Your task to perform on an android device: Add bose soundlink to the cart on target.com Image 0: 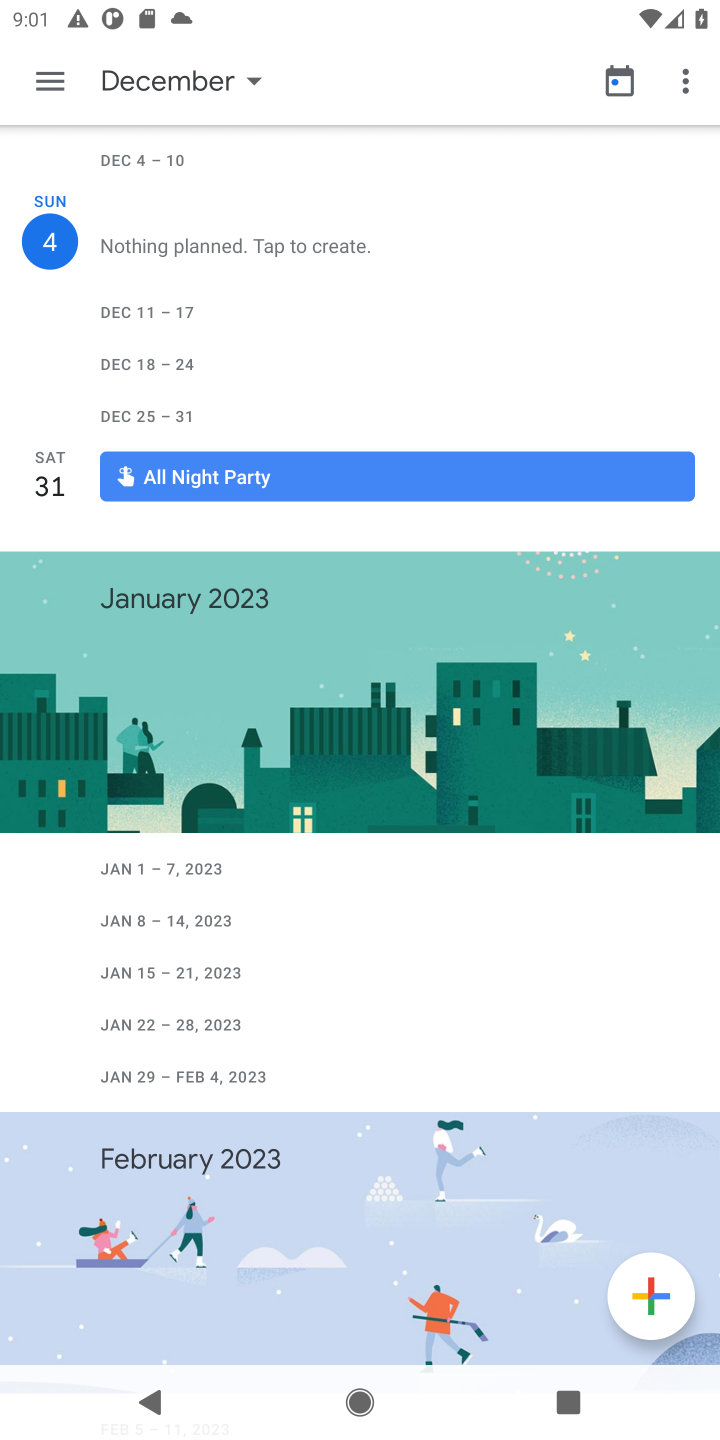
Step 0: press home button
Your task to perform on an android device: Add bose soundlink to the cart on target.com Image 1: 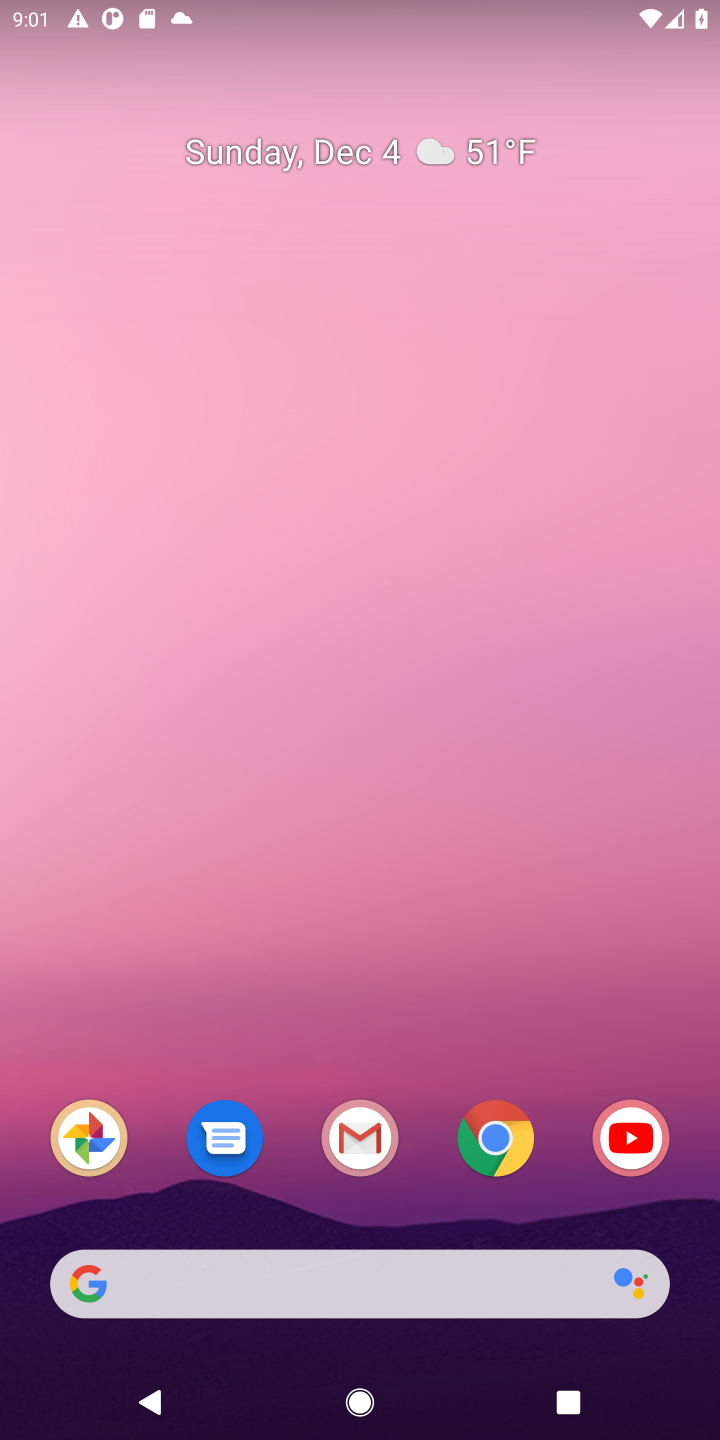
Step 1: click (498, 1151)
Your task to perform on an android device: Add bose soundlink to the cart on target.com Image 2: 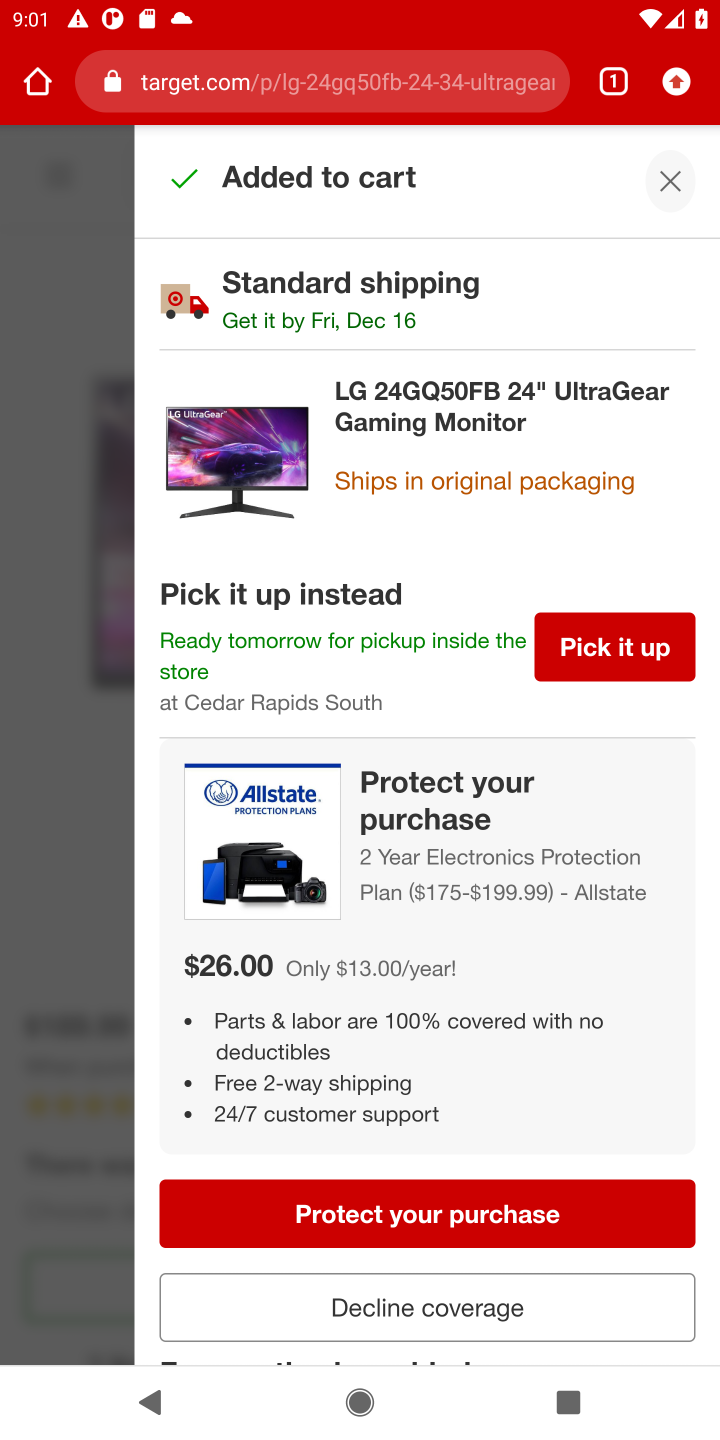
Step 2: click (457, 71)
Your task to perform on an android device: Add bose soundlink to the cart on target.com Image 3: 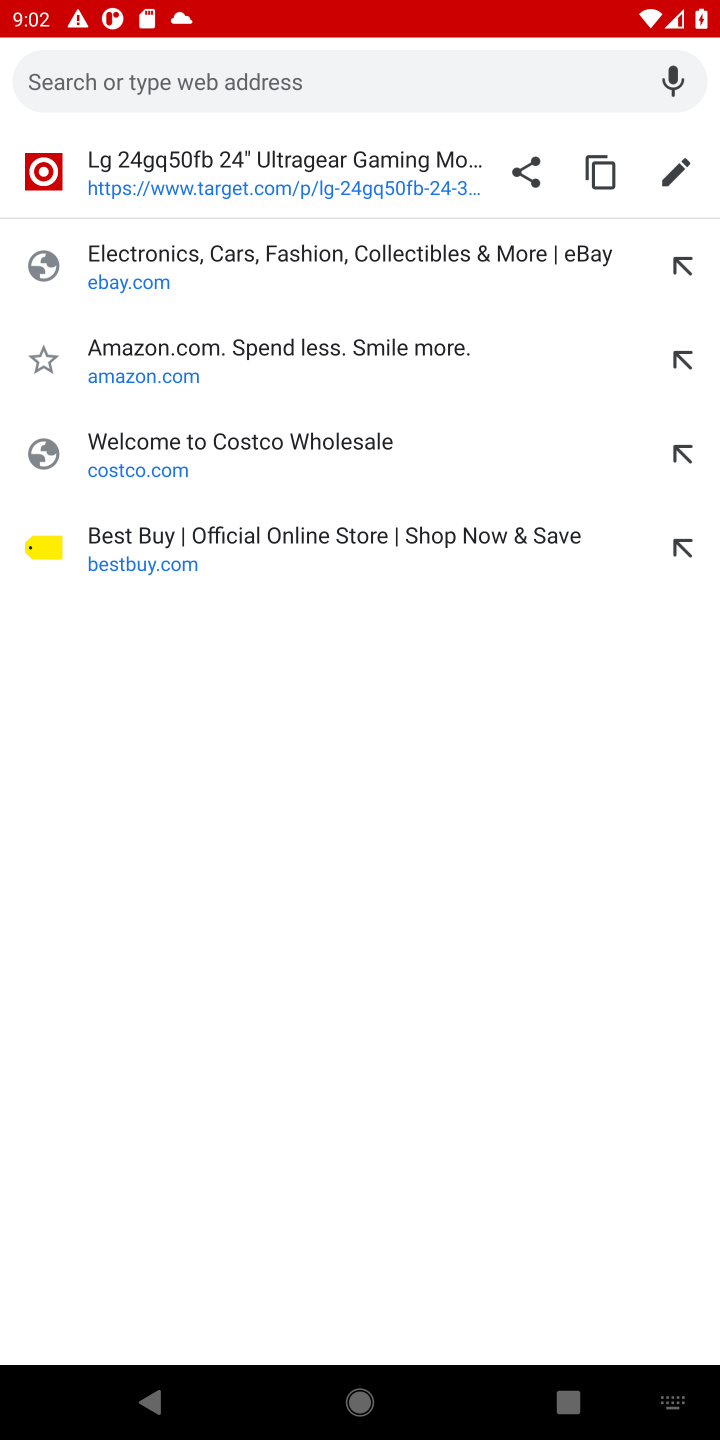
Step 3: type "target.com"
Your task to perform on an android device: Add bose soundlink to the cart on target.com Image 4: 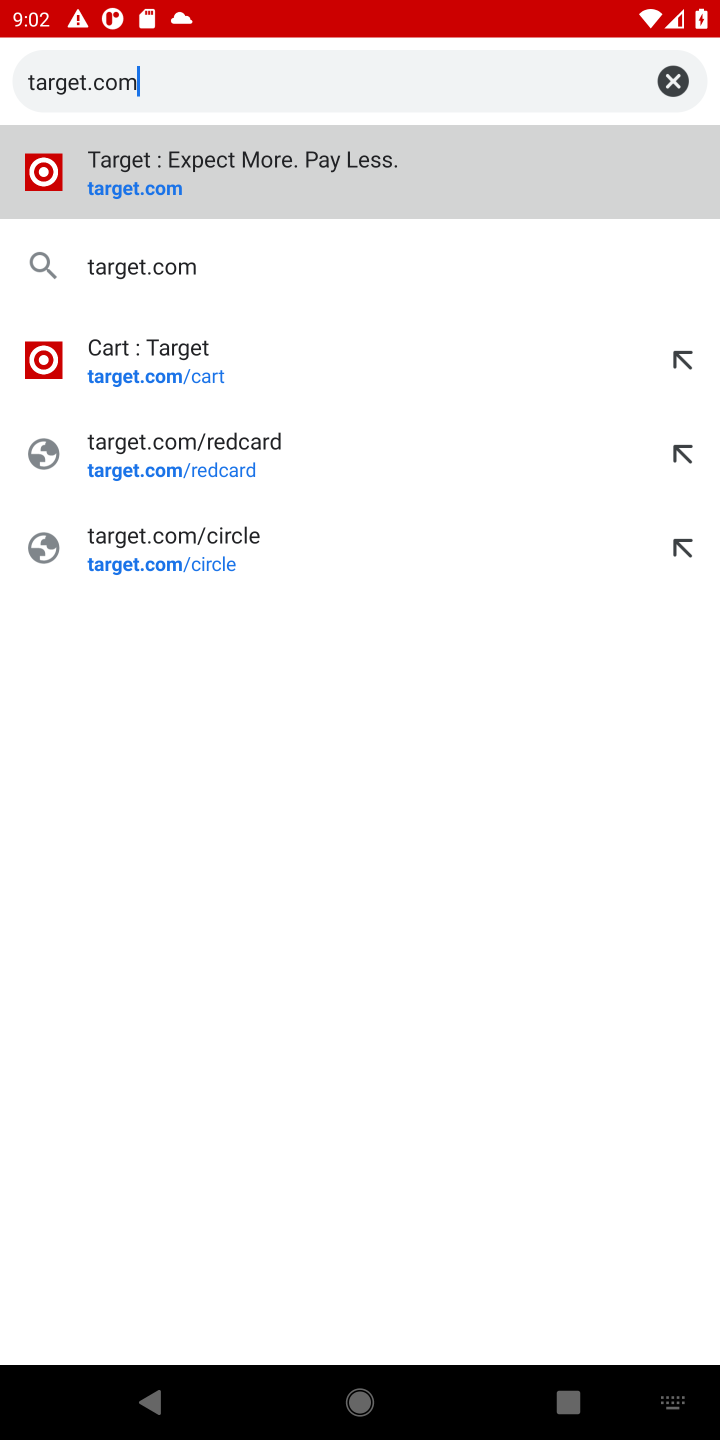
Step 4: press enter
Your task to perform on an android device: Add bose soundlink to the cart on target.com Image 5: 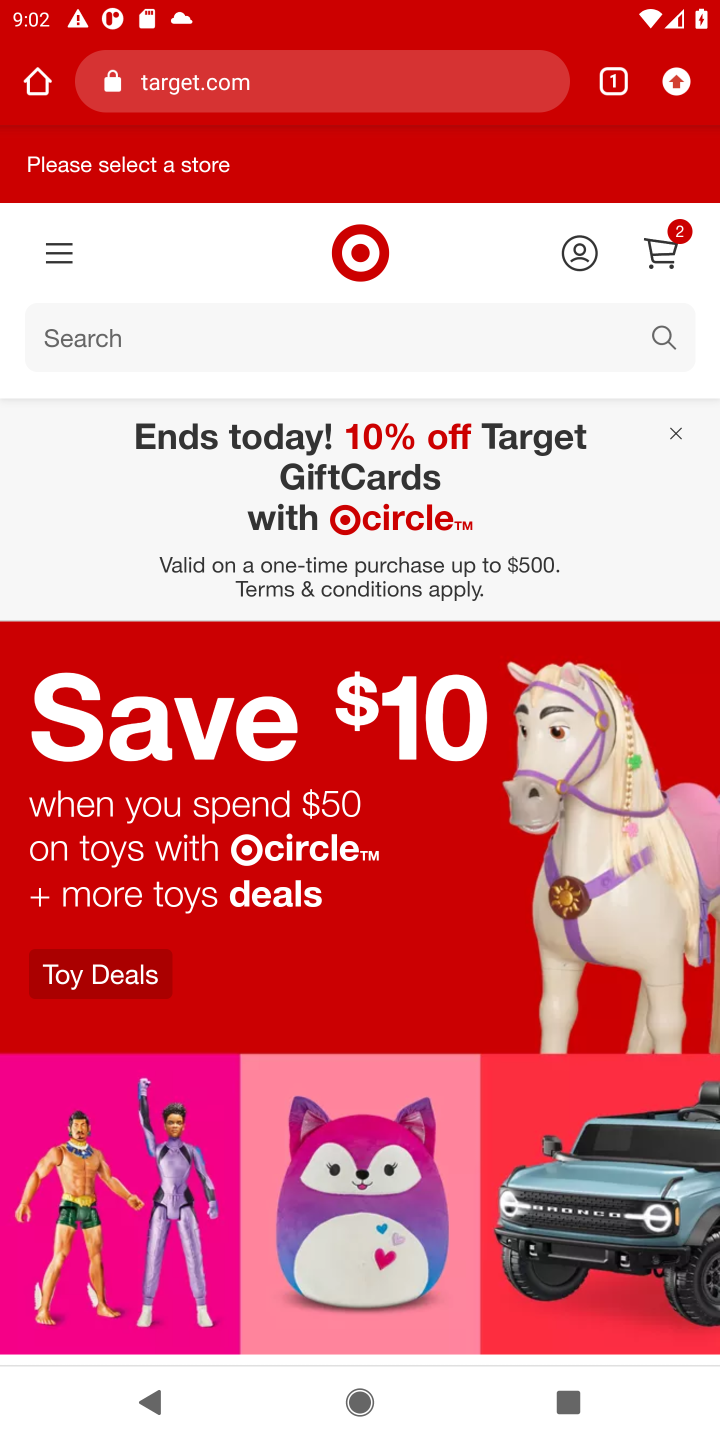
Step 5: click (657, 335)
Your task to perform on an android device: Add bose soundlink to the cart on target.com Image 6: 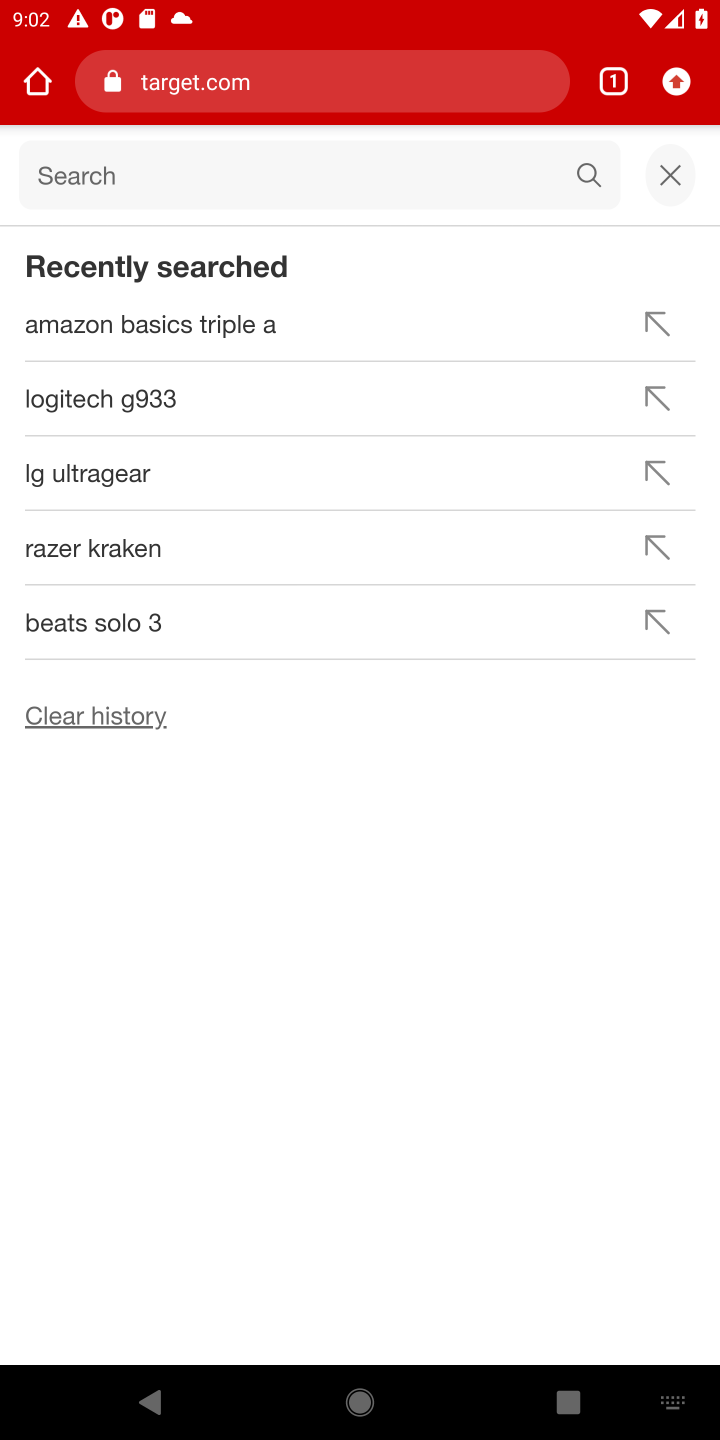
Step 6: press enter
Your task to perform on an android device: Add bose soundlink to the cart on target.com Image 7: 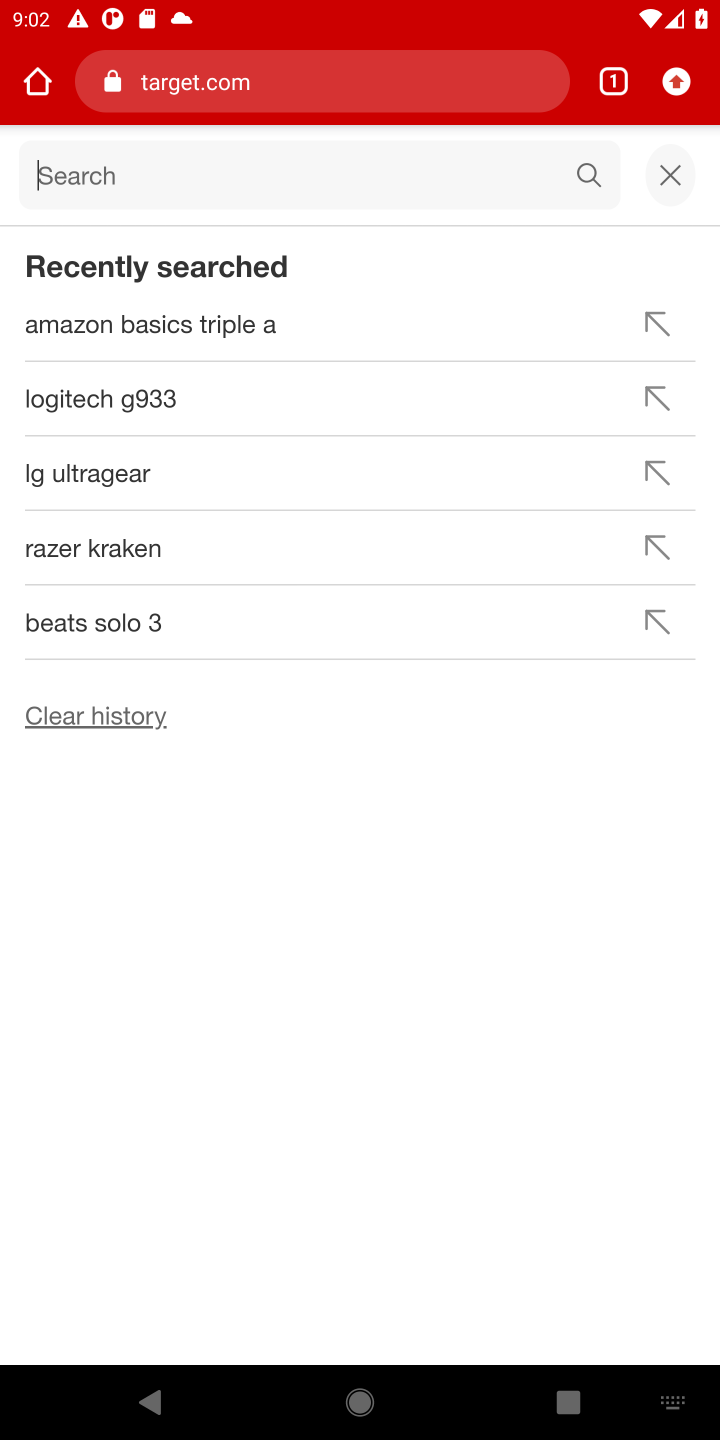
Step 7: type "bose soundlink"
Your task to perform on an android device: Add bose soundlink to the cart on target.com Image 8: 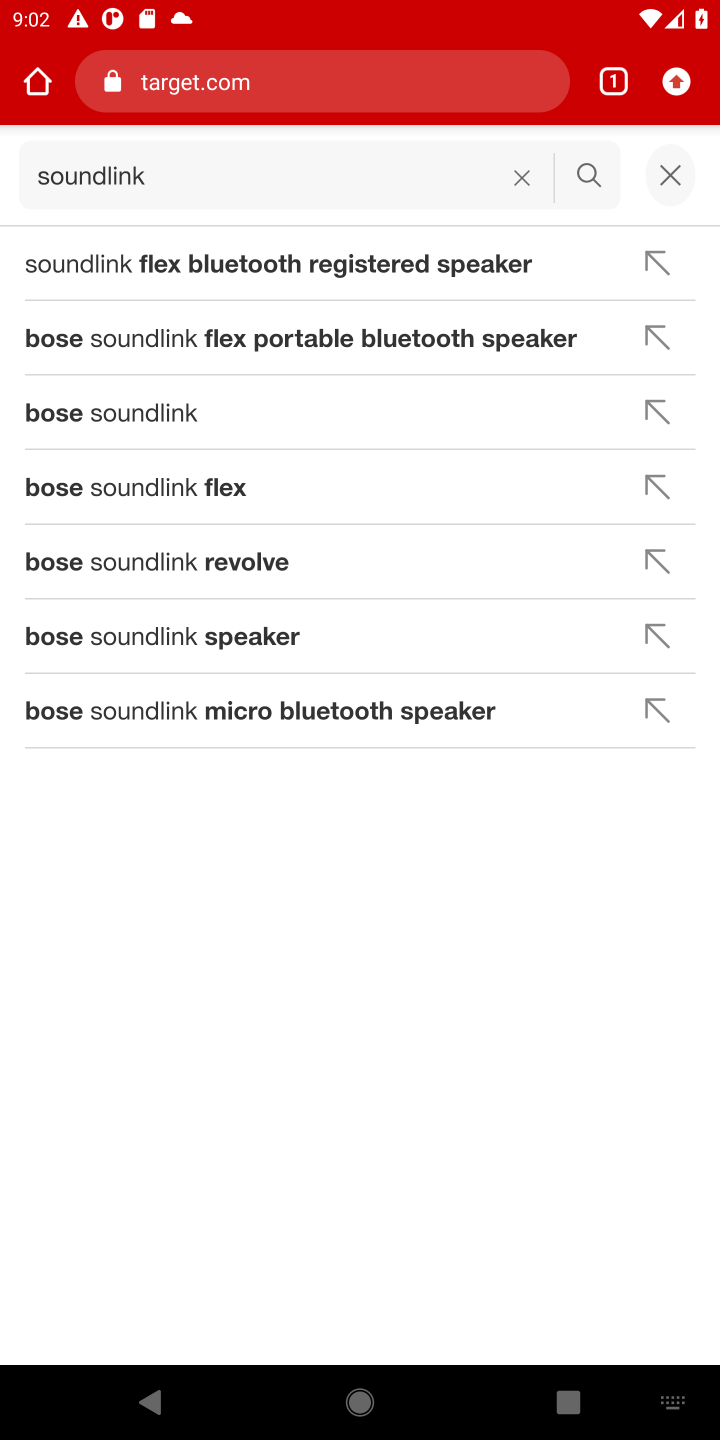
Step 8: click (147, 403)
Your task to perform on an android device: Add bose soundlink to the cart on target.com Image 9: 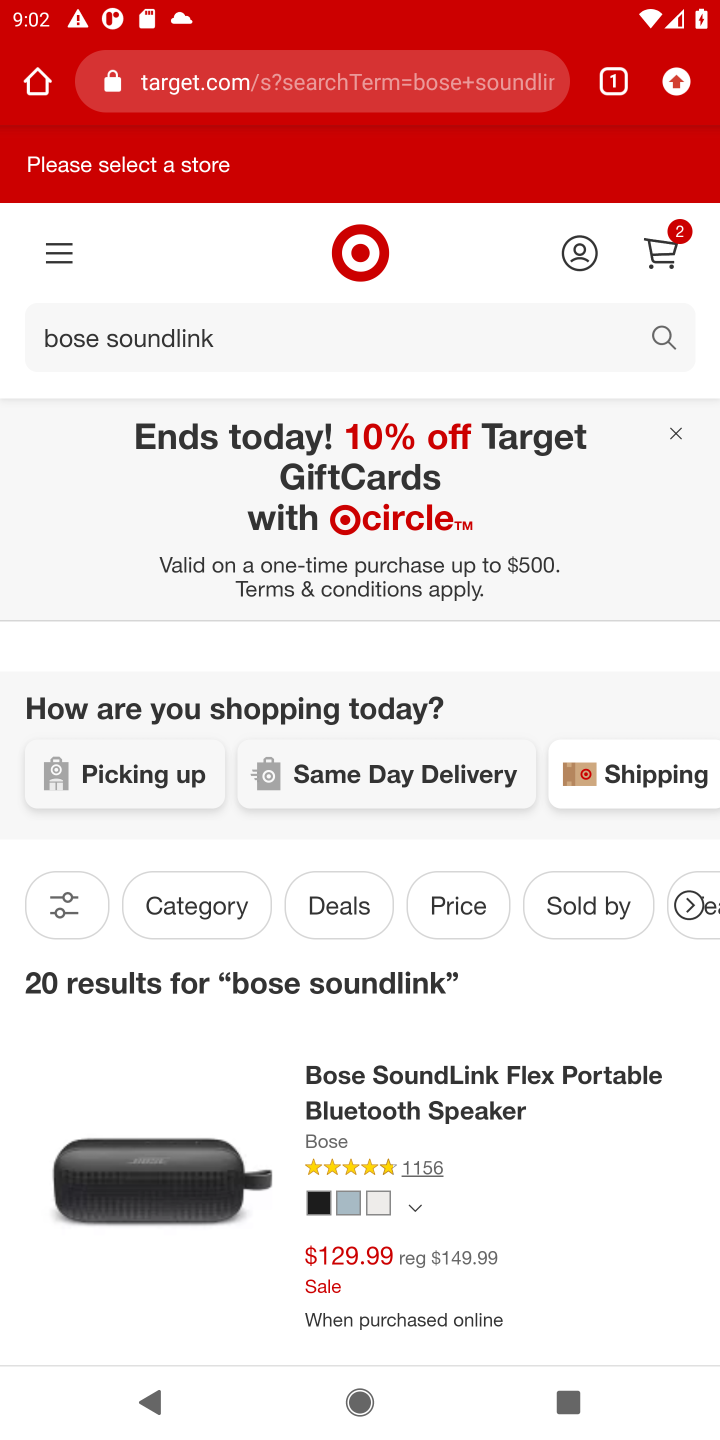
Step 9: drag from (613, 1128) to (706, 613)
Your task to perform on an android device: Add bose soundlink to the cart on target.com Image 10: 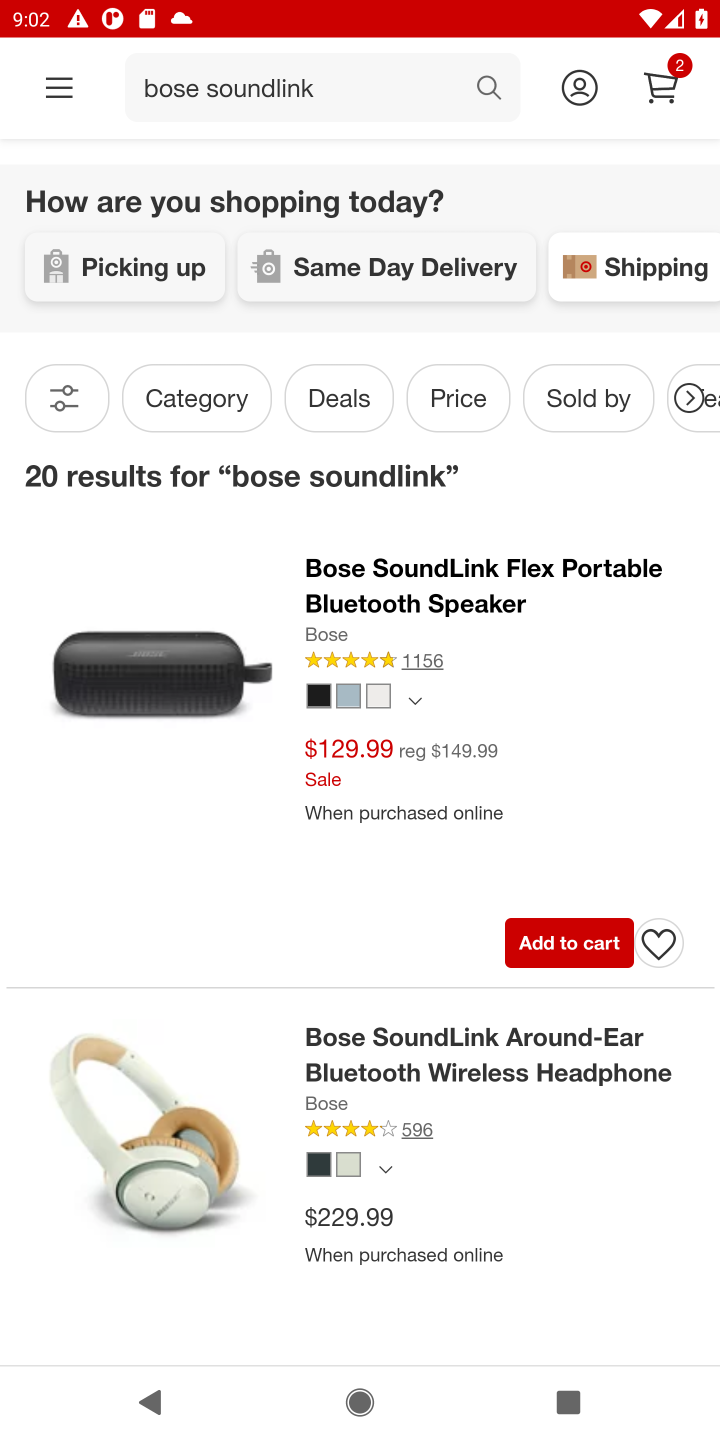
Step 10: click (141, 625)
Your task to perform on an android device: Add bose soundlink to the cart on target.com Image 11: 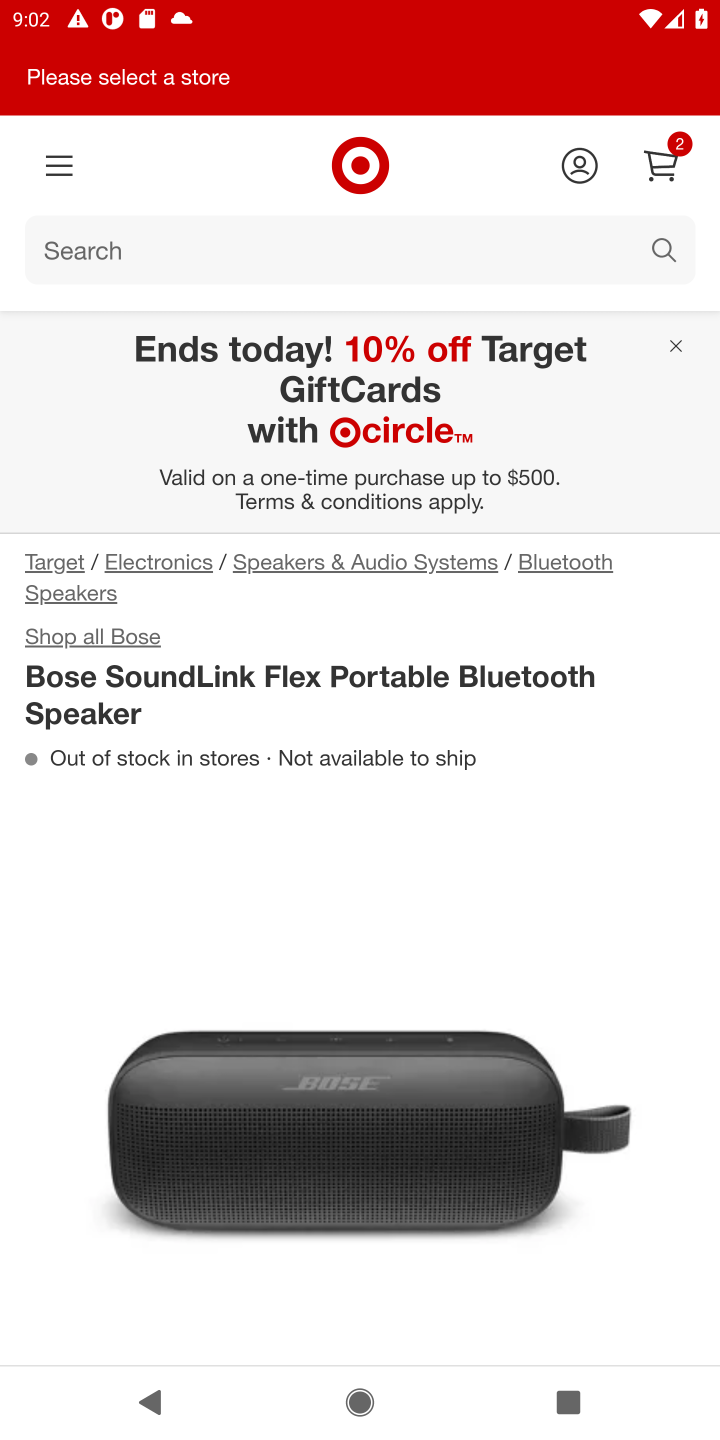
Step 11: drag from (559, 968) to (577, 281)
Your task to perform on an android device: Add bose soundlink to the cart on target.com Image 12: 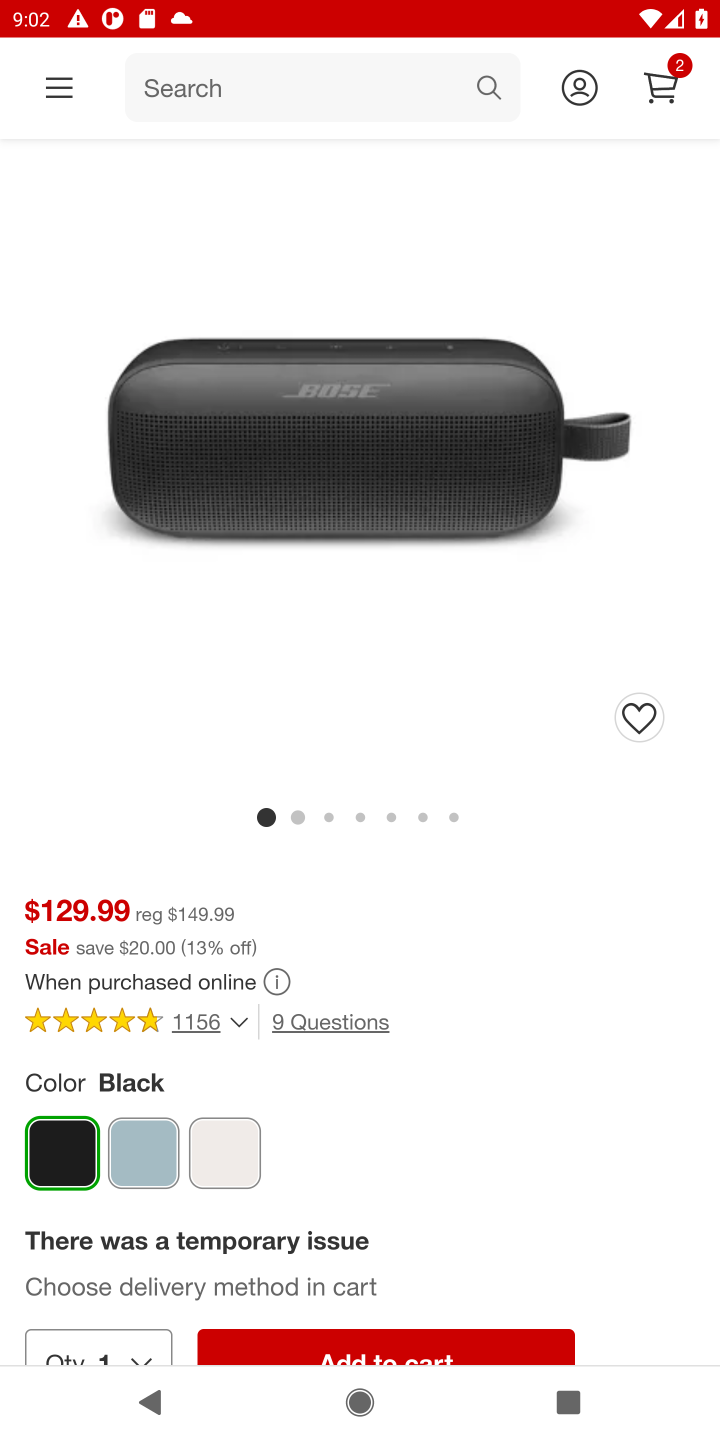
Step 12: drag from (647, 995) to (587, 456)
Your task to perform on an android device: Add bose soundlink to the cart on target.com Image 13: 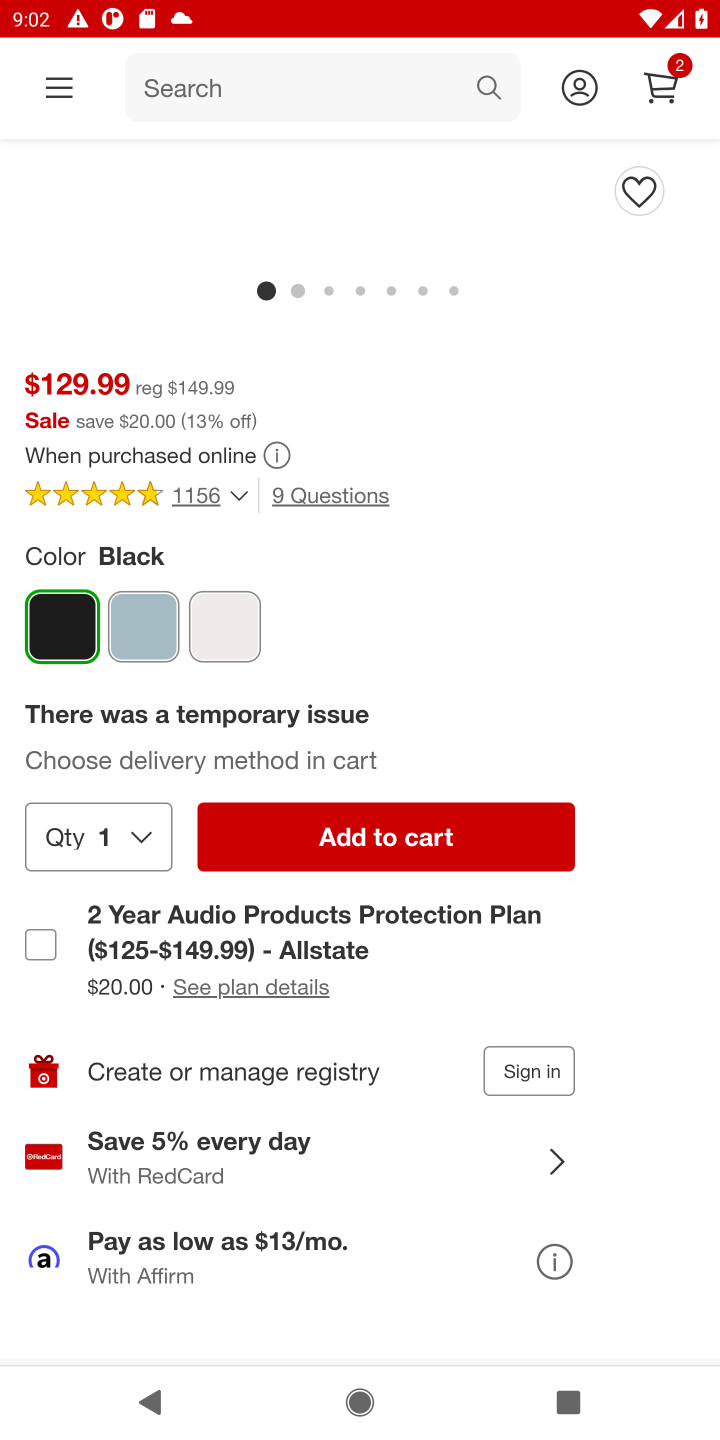
Step 13: click (386, 845)
Your task to perform on an android device: Add bose soundlink to the cart on target.com Image 14: 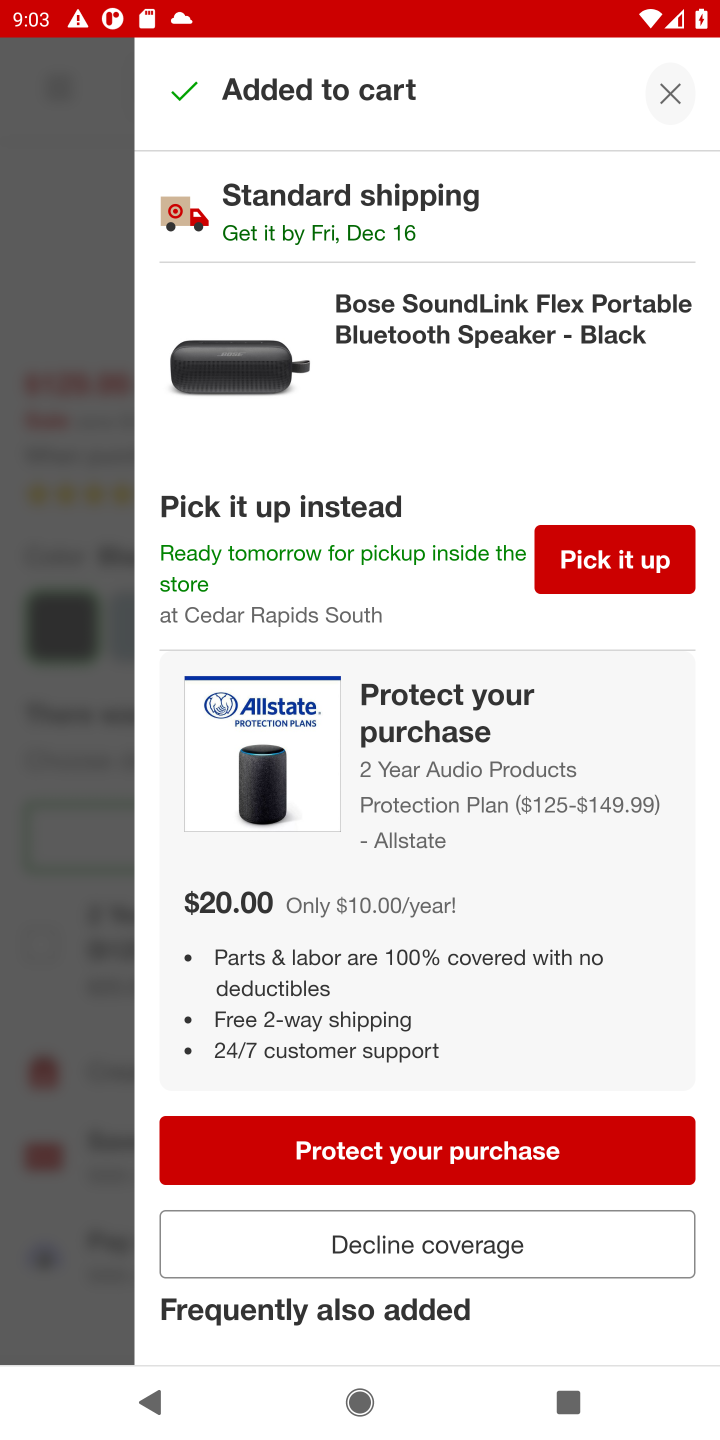
Step 14: task complete